Your task to perform on an android device: set an alarm Image 0: 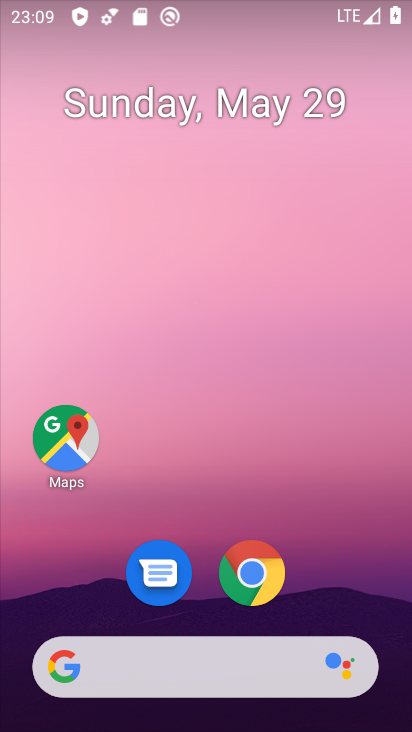
Step 0: drag from (346, 548) to (195, 56)
Your task to perform on an android device: set an alarm Image 1: 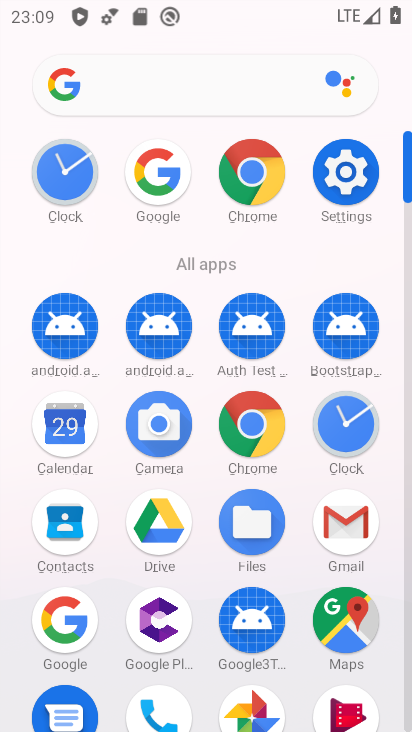
Step 1: click (73, 194)
Your task to perform on an android device: set an alarm Image 2: 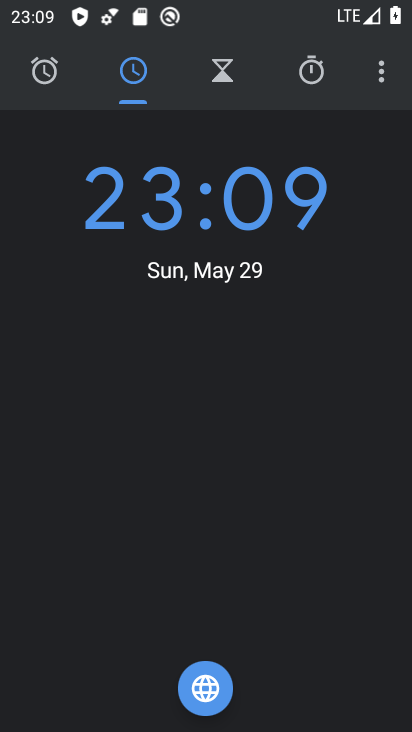
Step 2: click (35, 69)
Your task to perform on an android device: set an alarm Image 3: 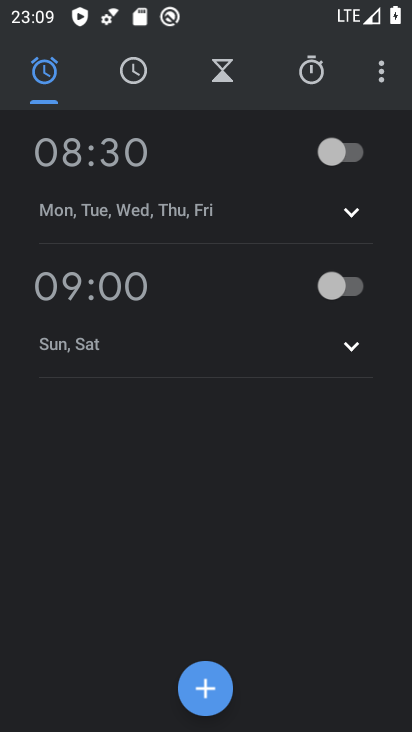
Step 3: click (339, 153)
Your task to perform on an android device: set an alarm Image 4: 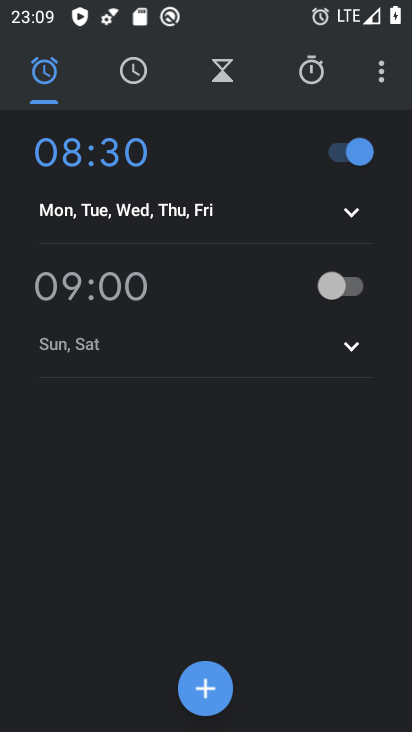
Step 4: task complete